Your task to perform on an android device: toggle priority inbox in the gmail app Image 0: 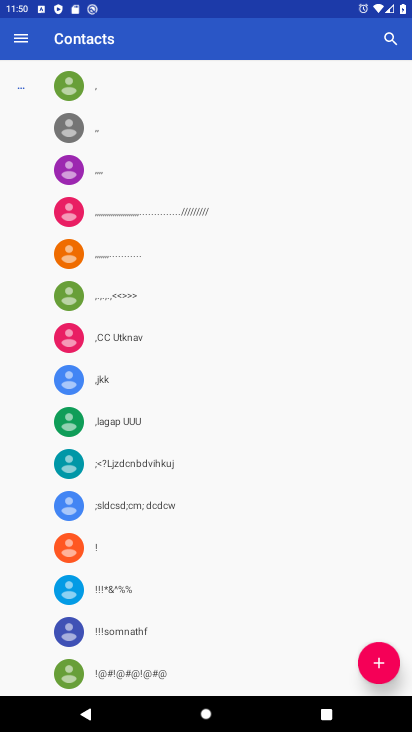
Step 0: press home button
Your task to perform on an android device: toggle priority inbox in the gmail app Image 1: 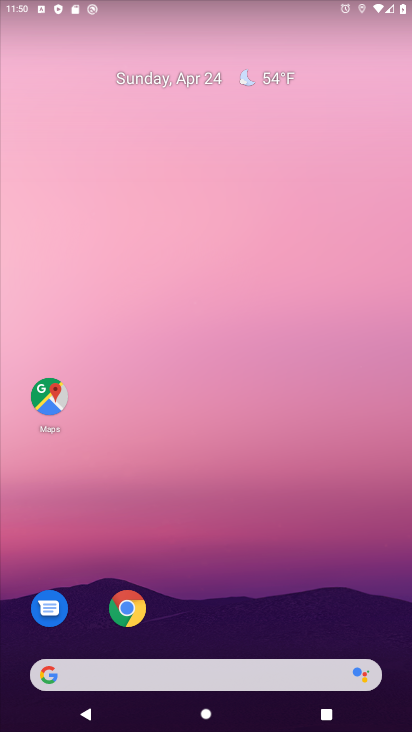
Step 1: drag from (363, 626) to (320, 70)
Your task to perform on an android device: toggle priority inbox in the gmail app Image 2: 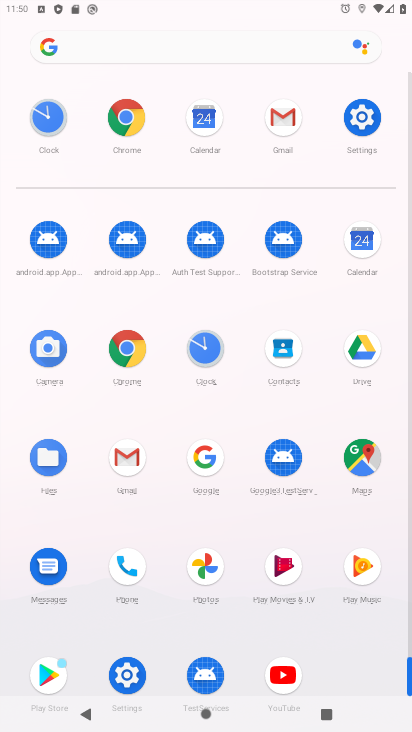
Step 2: click (126, 456)
Your task to perform on an android device: toggle priority inbox in the gmail app Image 3: 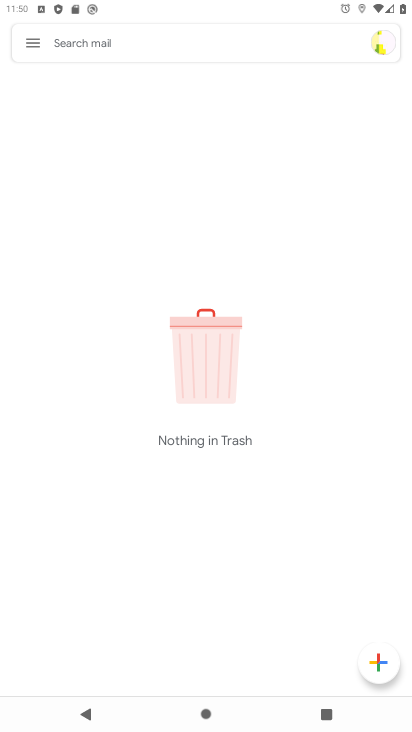
Step 3: click (30, 40)
Your task to perform on an android device: toggle priority inbox in the gmail app Image 4: 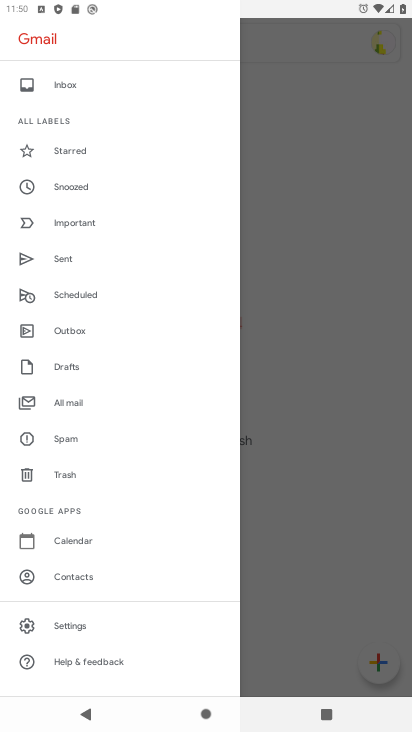
Step 4: click (63, 621)
Your task to perform on an android device: toggle priority inbox in the gmail app Image 5: 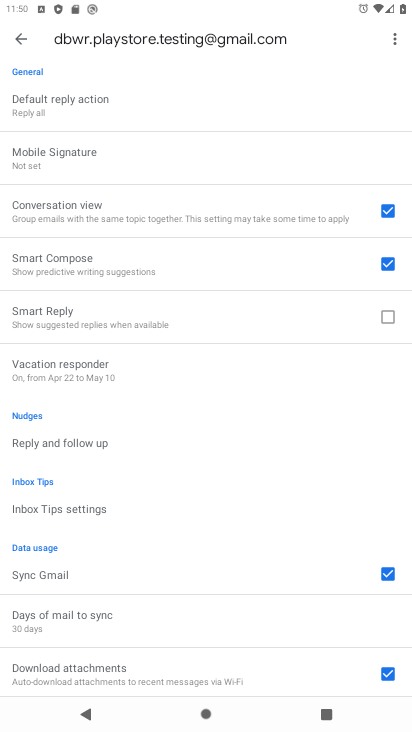
Step 5: drag from (171, 202) to (244, 502)
Your task to perform on an android device: toggle priority inbox in the gmail app Image 6: 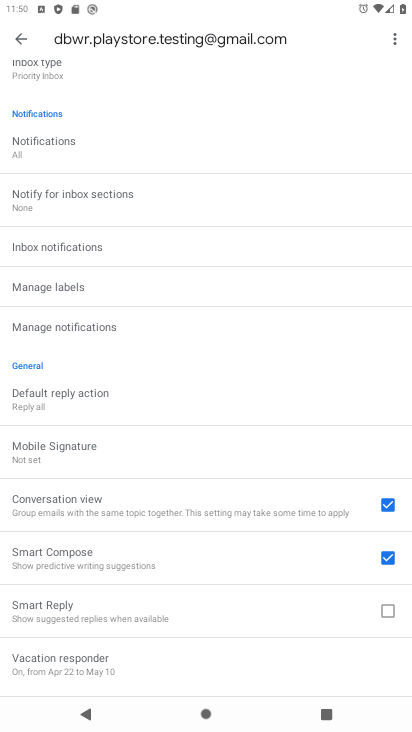
Step 6: drag from (245, 253) to (203, 523)
Your task to perform on an android device: toggle priority inbox in the gmail app Image 7: 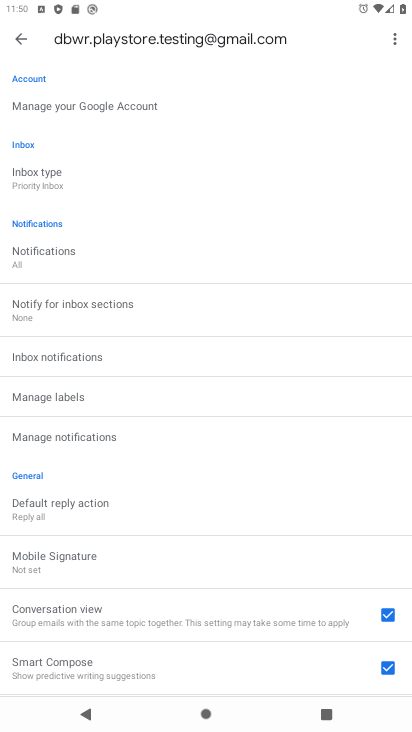
Step 7: click (38, 172)
Your task to perform on an android device: toggle priority inbox in the gmail app Image 8: 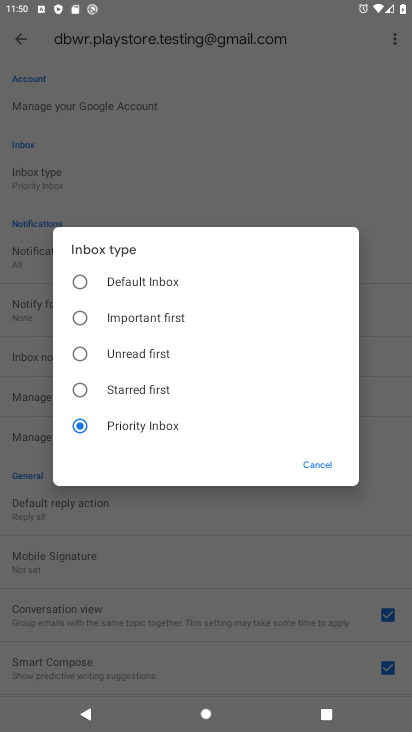
Step 8: click (79, 277)
Your task to perform on an android device: toggle priority inbox in the gmail app Image 9: 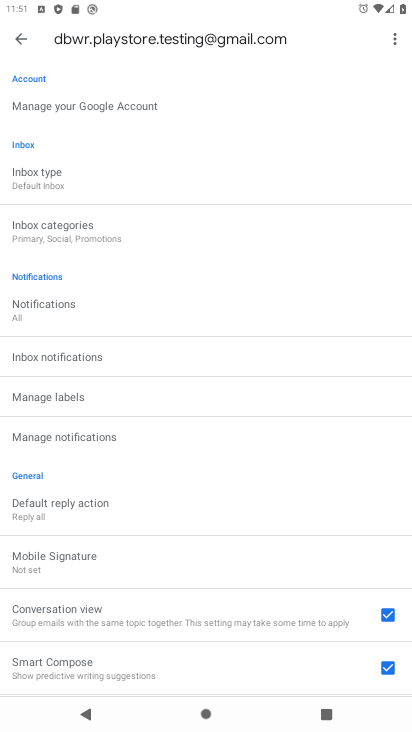
Step 9: task complete